Your task to perform on an android device: Show the shopping cart on walmart. Search for usb-b on walmart, select the first entry, and add it to the cart. Image 0: 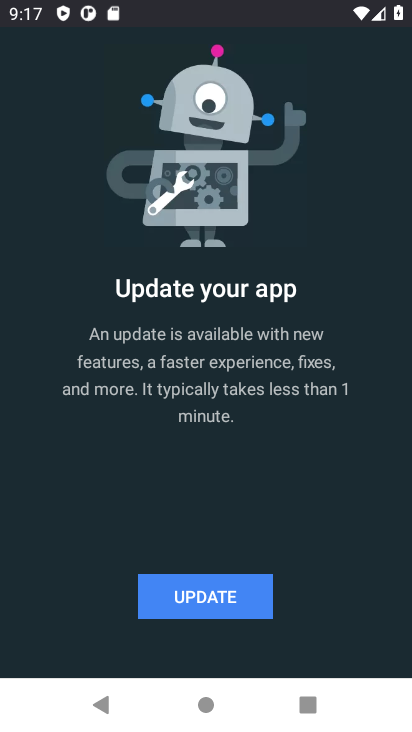
Step 0: press home button
Your task to perform on an android device: Show the shopping cart on walmart. Search for usb-b on walmart, select the first entry, and add it to the cart. Image 1: 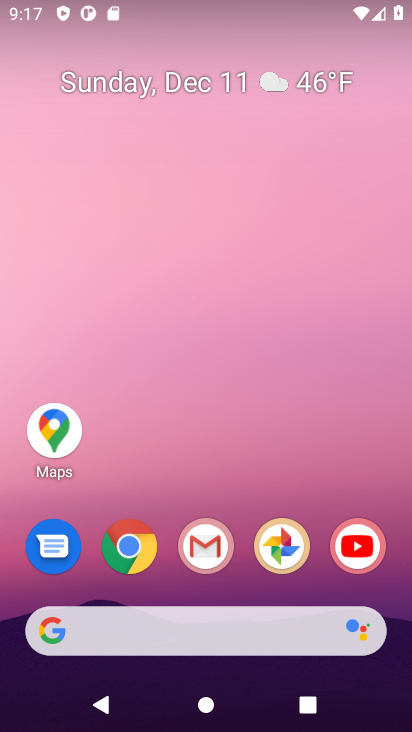
Step 1: click (131, 559)
Your task to perform on an android device: Show the shopping cart on walmart. Search for usb-b on walmart, select the first entry, and add it to the cart. Image 2: 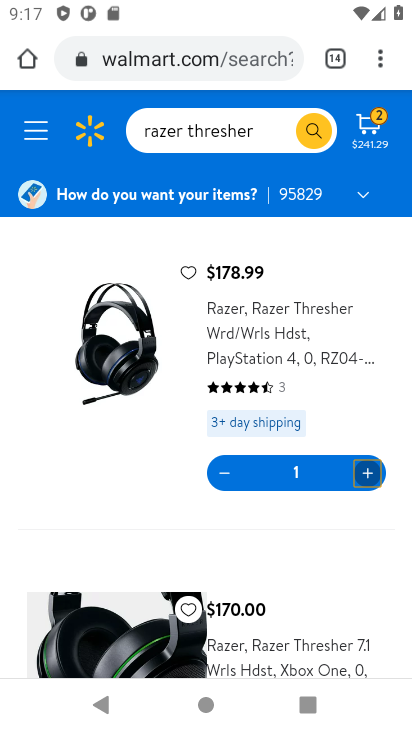
Step 2: click (374, 125)
Your task to perform on an android device: Show the shopping cart on walmart. Search for usb-b on walmart, select the first entry, and add it to the cart. Image 3: 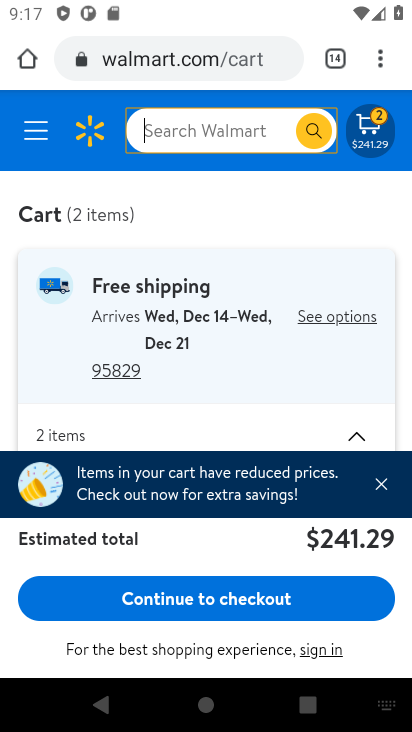
Step 3: drag from (206, 425) to (209, 300)
Your task to perform on an android device: Show the shopping cart on walmart. Search for usb-b on walmart, select the first entry, and add it to the cart. Image 4: 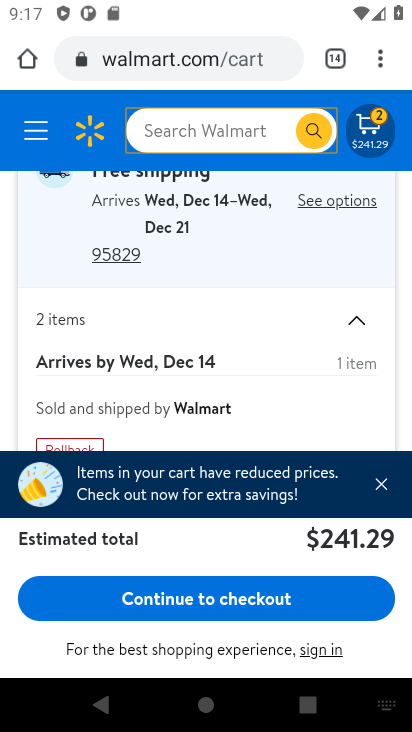
Step 4: click (192, 129)
Your task to perform on an android device: Show the shopping cart on walmart. Search for usb-b on walmart, select the first entry, and add it to the cart. Image 5: 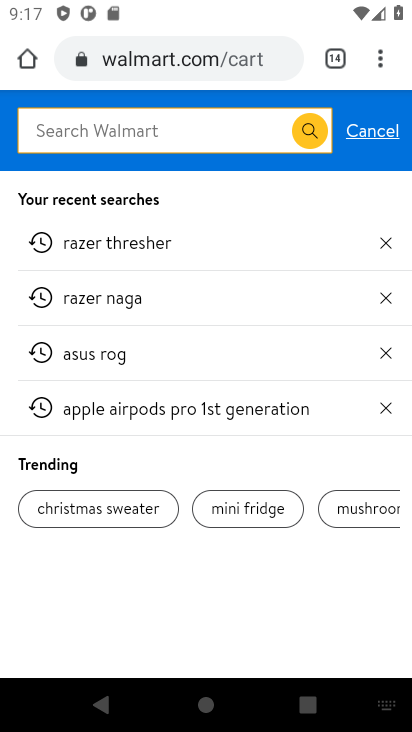
Step 5: type "usb-b "
Your task to perform on an android device: Show the shopping cart on walmart. Search for usb-b on walmart, select the first entry, and add it to the cart. Image 6: 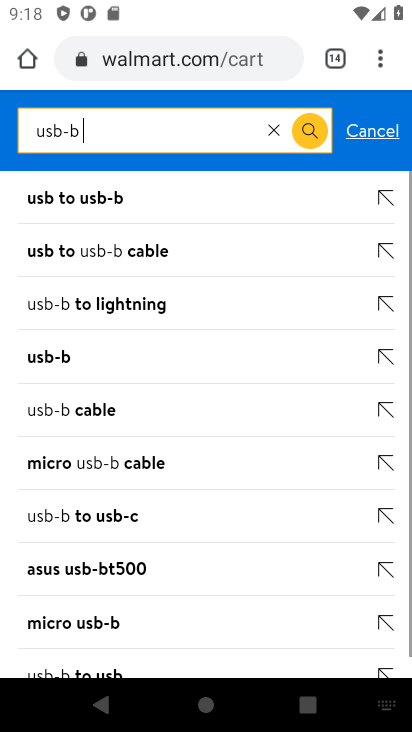
Step 6: click (59, 358)
Your task to perform on an android device: Show the shopping cart on walmart. Search for usb-b on walmart, select the first entry, and add it to the cart. Image 7: 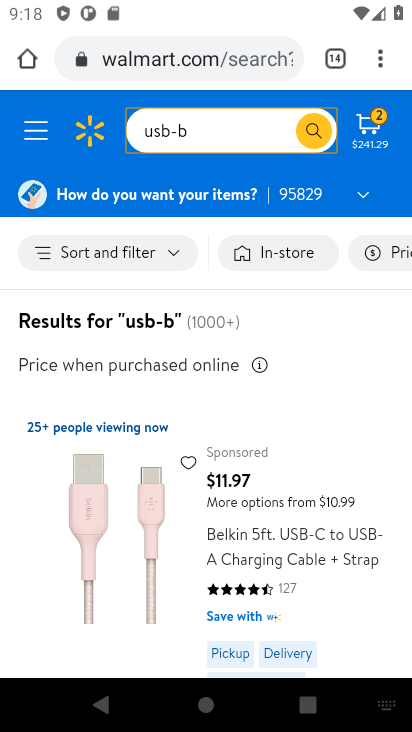
Step 7: task complete